Your task to perform on an android device: check data usage Image 0: 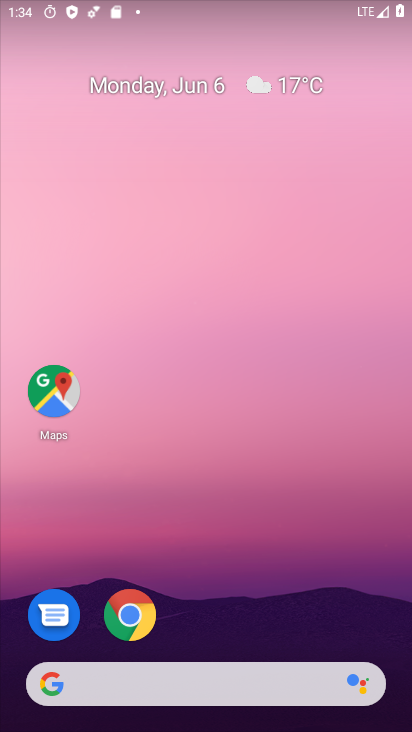
Step 0: click (223, 172)
Your task to perform on an android device: check data usage Image 1: 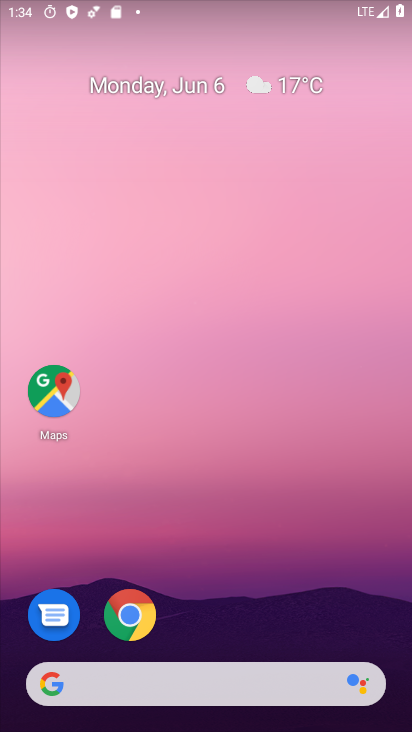
Step 1: drag from (204, 609) to (221, 213)
Your task to perform on an android device: check data usage Image 2: 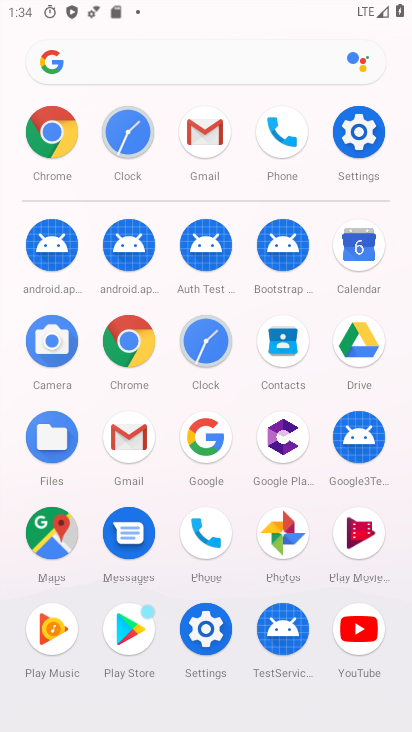
Step 2: drag from (238, 529) to (207, 154)
Your task to perform on an android device: check data usage Image 3: 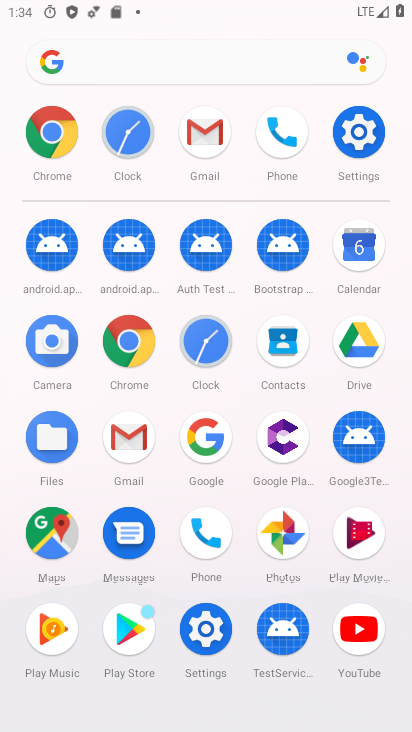
Step 3: click (354, 121)
Your task to perform on an android device: check data usage Image 4: 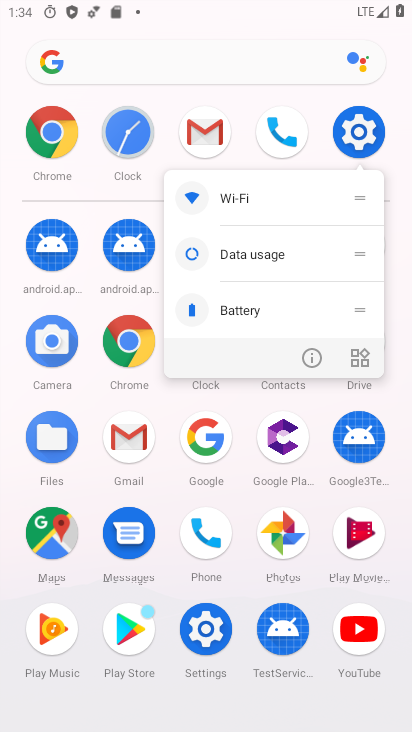
Step 4: click (265, 262)
Your task to perform on an android device: check data usage Image 5: 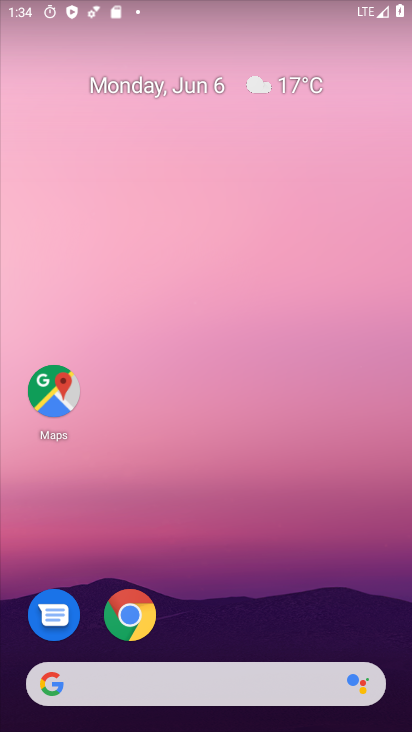
Step 5: drag from (189, 550) to (213, 93)
Your task to perform on an android device: check data usage Image 6: 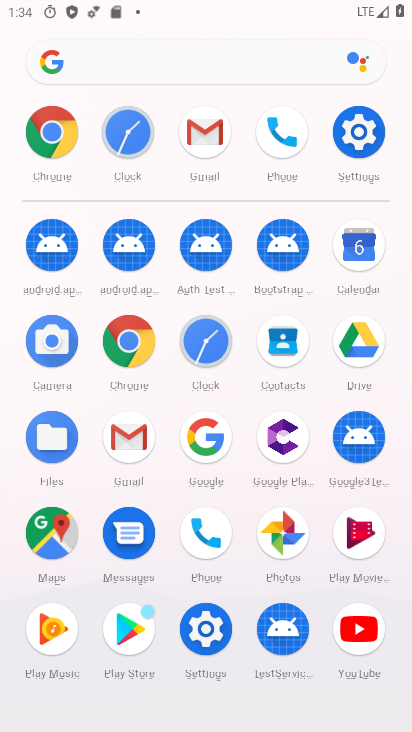
Step 6: click (362, 132)
Your task to perform on an android device: check data usage Image 7: 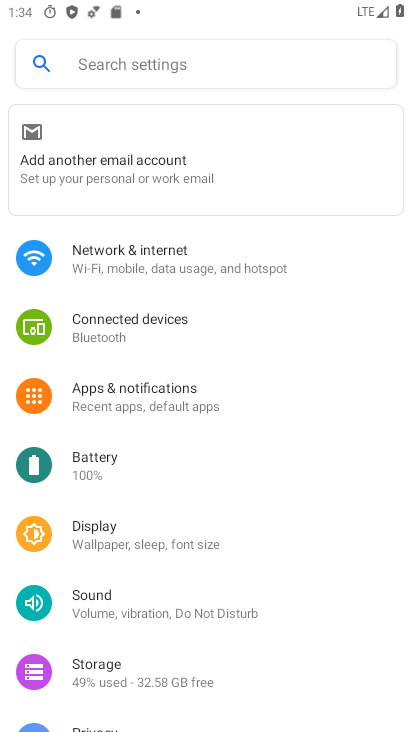
Step 7: drag from (204, 511) to (234, 274)
Your task to perform on an android device: check data usage Image 8: 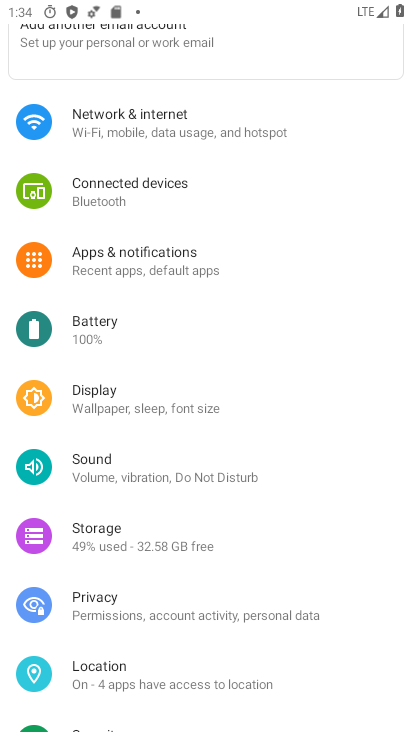
Step 8: click (177, 131)
Your task to perform on an android device: check data usage Image 9: 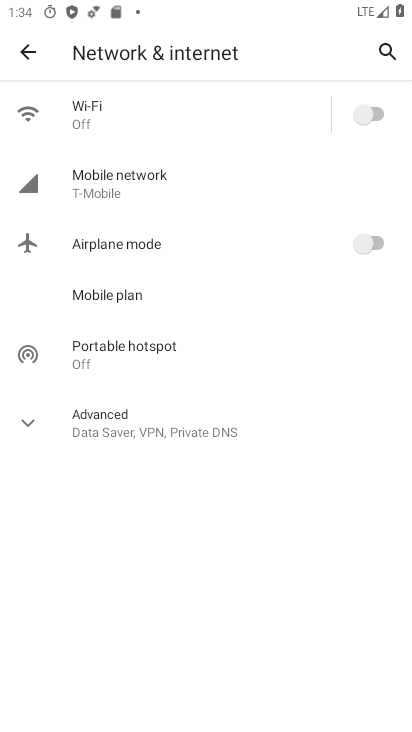
Step 9: click (159, 177)
Your task to perform on an android device: check data usage Image 10: 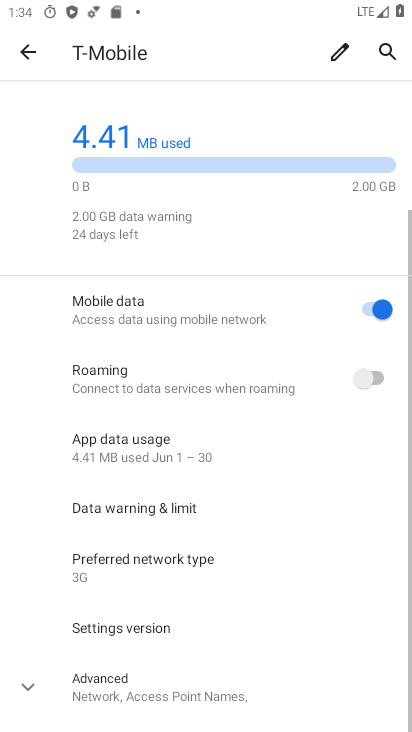
Step 10: task complete